Your task to perform on an android device: What is the news today? Image 0: 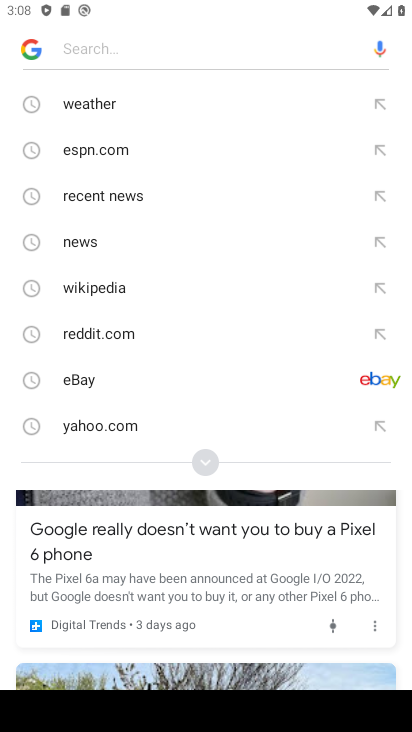
Step 0: click (203, 233)
Your task to perform on an android device: What is the news today? Image 1: 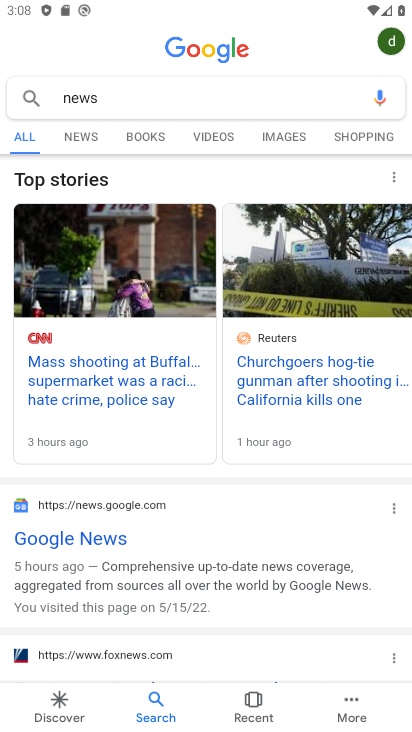
Step 1: task complete